Your task to perform on an android device: change the clock style Image 0: 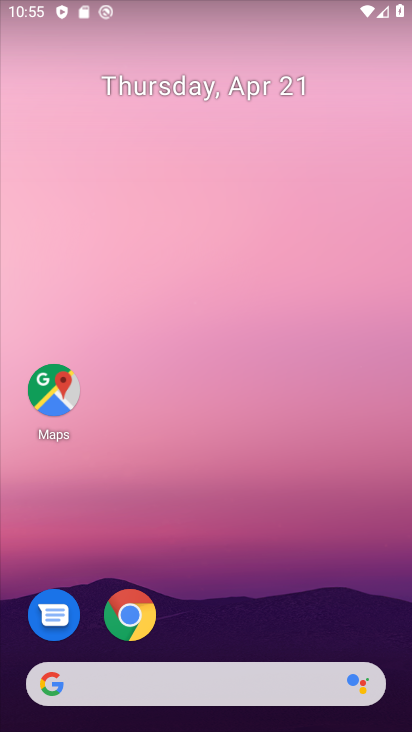
Step 0: drag from (261, 564) to (215, 250)
Your task to perform on an android device: change the clock style Image 1: 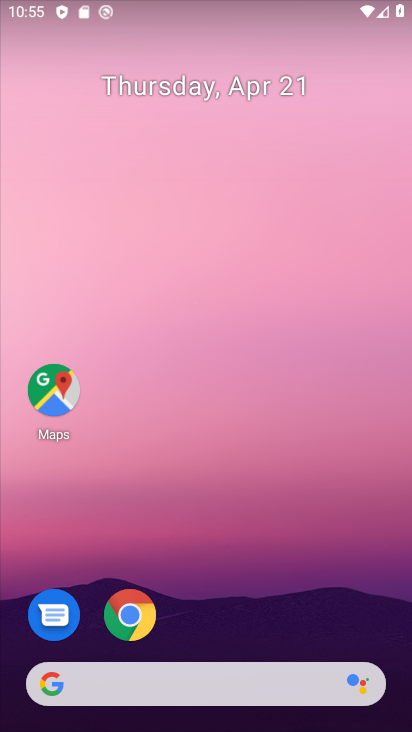
Step 1: drag from (216, 675) to (104, 87)
Your task to perform on an android device: change the clock style Image 2: 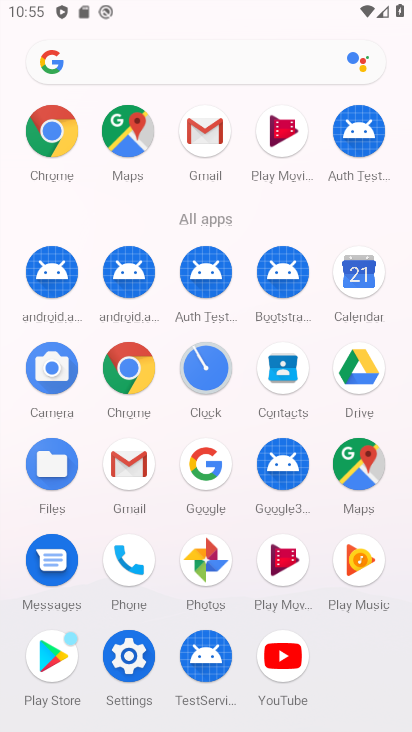
Step 2: click (211, 366)
Your task to perform on an android device: change the clock style Image 3: 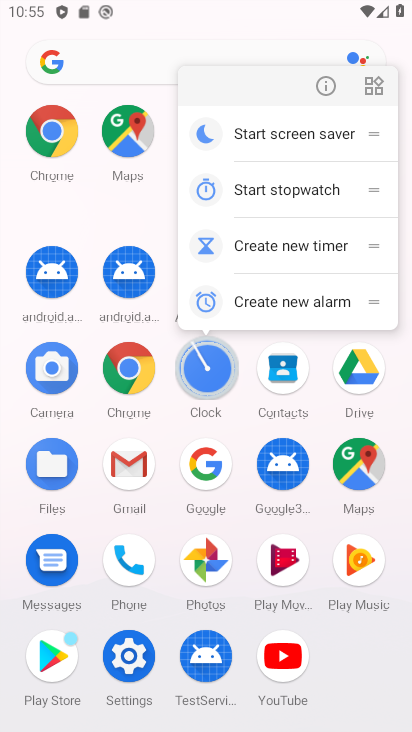
Step 3: click (210, 365)
Your task to perform on an android device: change the clock style Image 4: 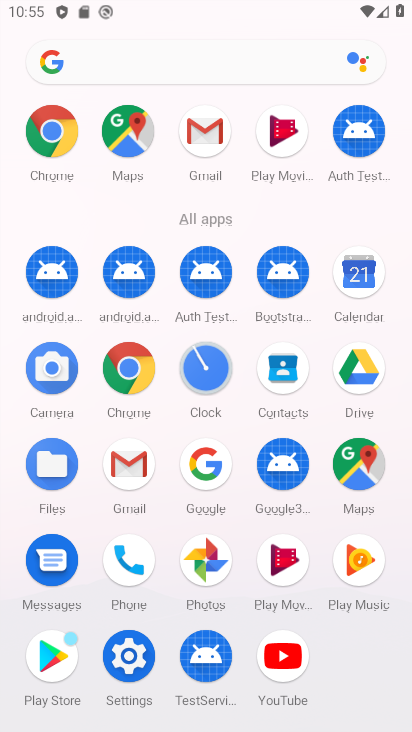
Step 4: click (210, 365)
Your task to perform on an android device: change the clock style Image 5: 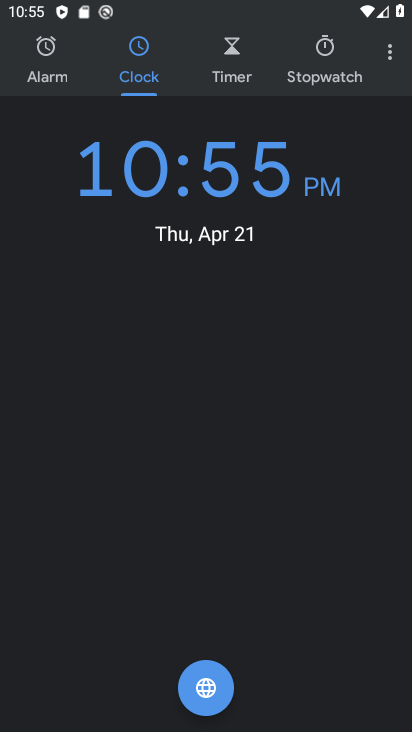
Step 5: click (384, 55)
Your task to perform on an android device: change the clock style Image 6: 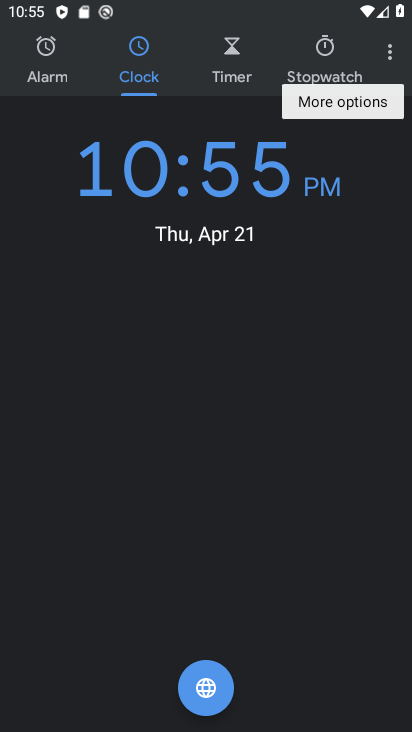
Step 6: click (384, 55)
Your task to perform on an android device: change the clock style Image 7: 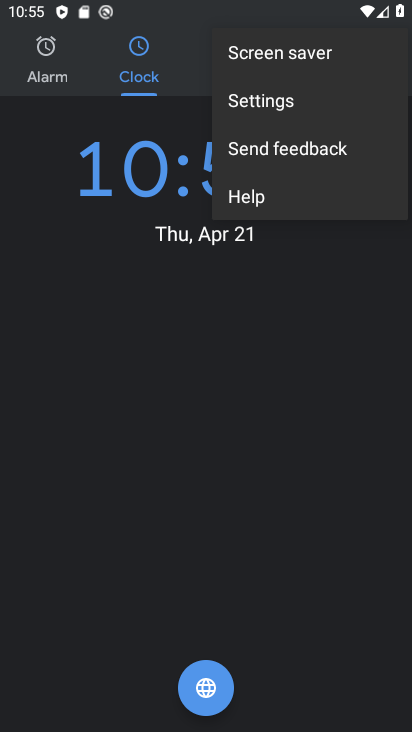
Step 7: click (384, 55)
Your task to perform on an android device: change the clock style Image 8: 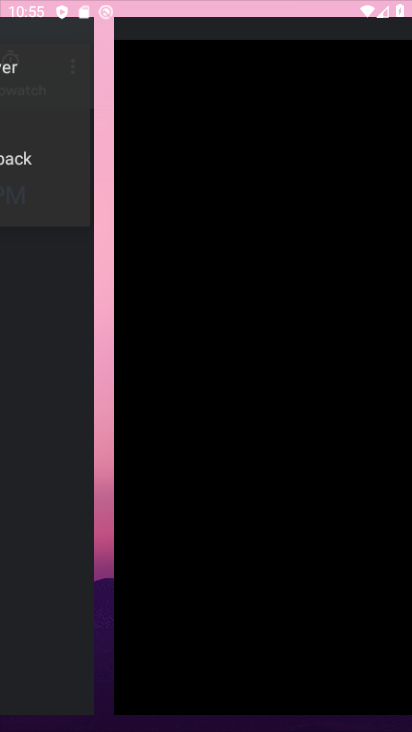
Step 8: click (273, 98)
Your task to perform on an android device: change the clock style Image 9: 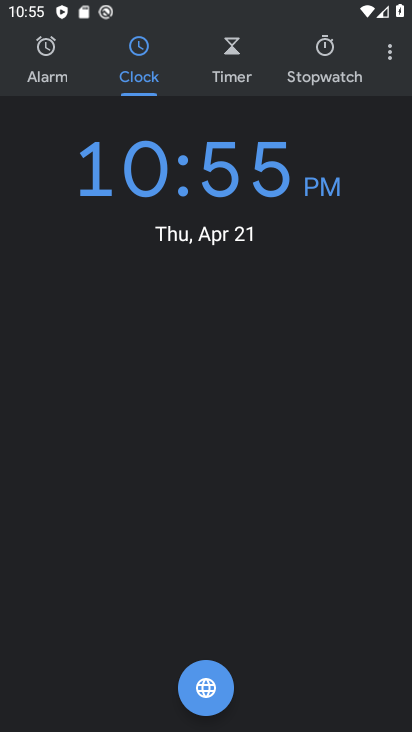
Step 9: click (388, 59)
Your task to perform on an android device: change the clock style Image 10: 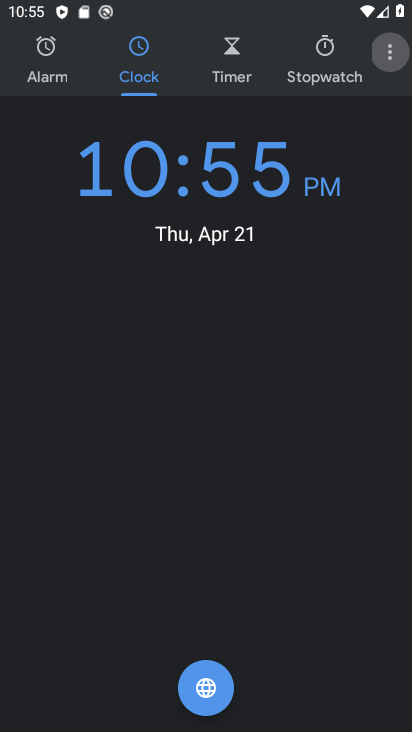
Step 10: click (388, 59)
Your task to perform on an android device: change the clock style Image 11: 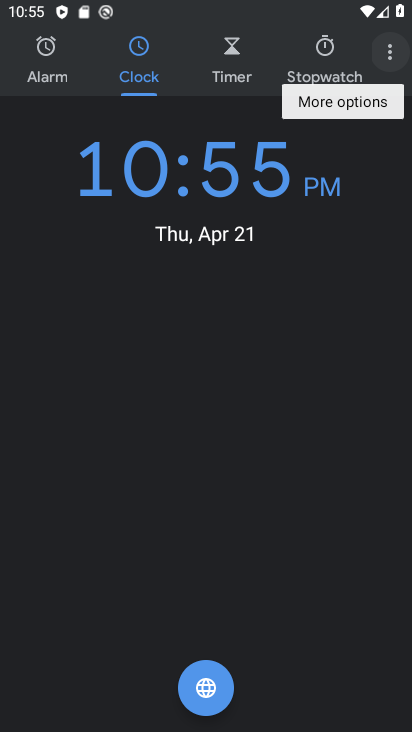
Step 11: click (388, 59)
Your task to perform on an android device: change the clock style Image 12: 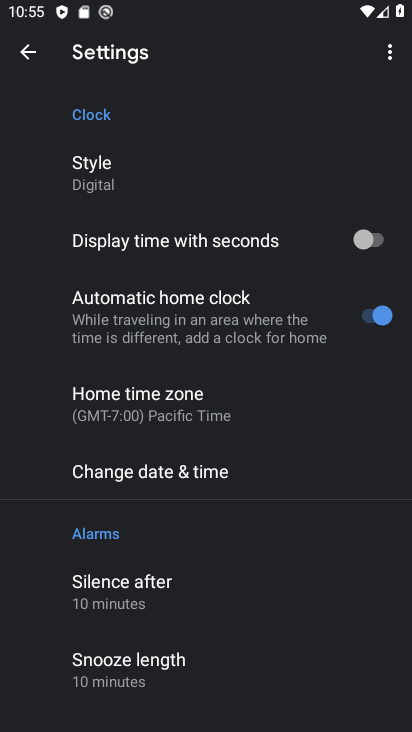
Step 12: click (155, 154)
Your task to perform on an android device: change the clock style Image 13: 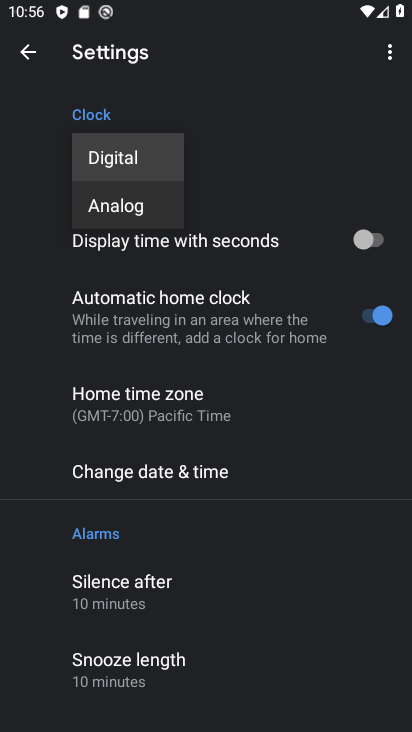
Step 13: click (150, 201)
Your task to perform on an android device: change the clock style Image 14: 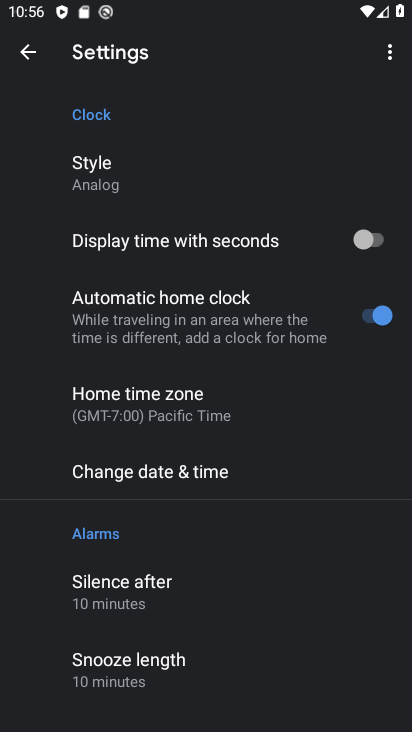
Step 14: task complete